Your task to perform on an android device: Open Yahoo.com Image 0: 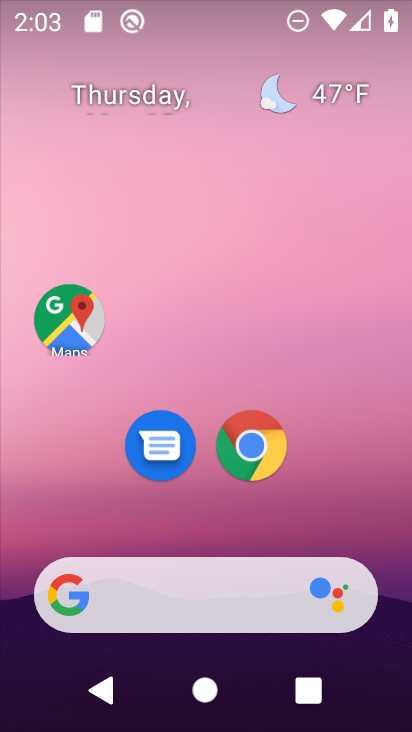
Step 0: click (254, 431)
Your task to perform on an android device: Open Yahoo.com Image 1: 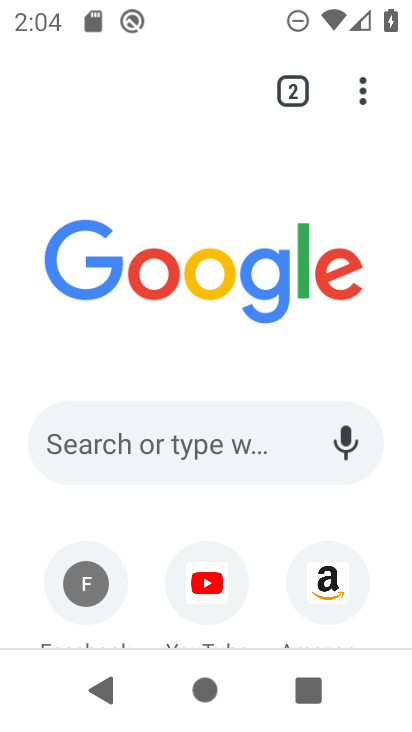
Step 1: drag from (142, 506) to (270, 224)
Your task to perform on an android device: Open Yahoo.com Image 2: 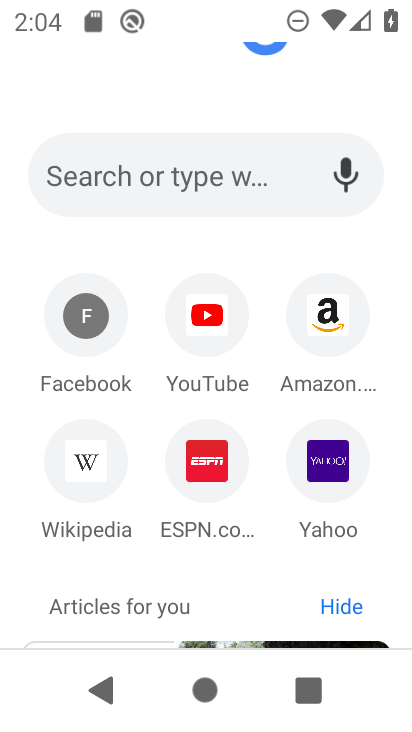
Step 2: click (318, 471)
Your task to perform on an android device: Open Yahoo.com Image 3: 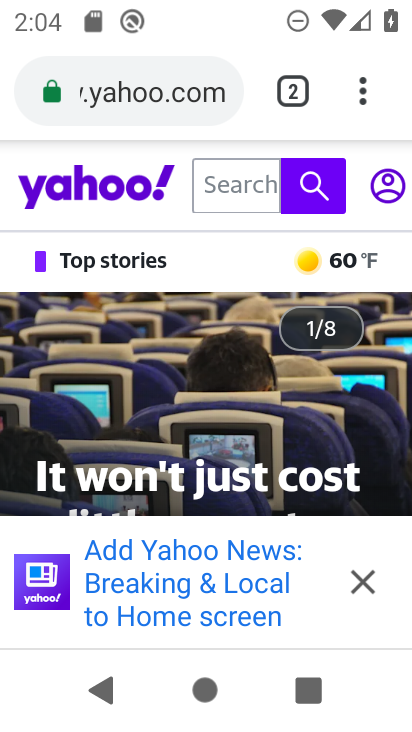
Step 3: task complete